Your task to perform on an android device: Search for a sofa on article.com Image 0: 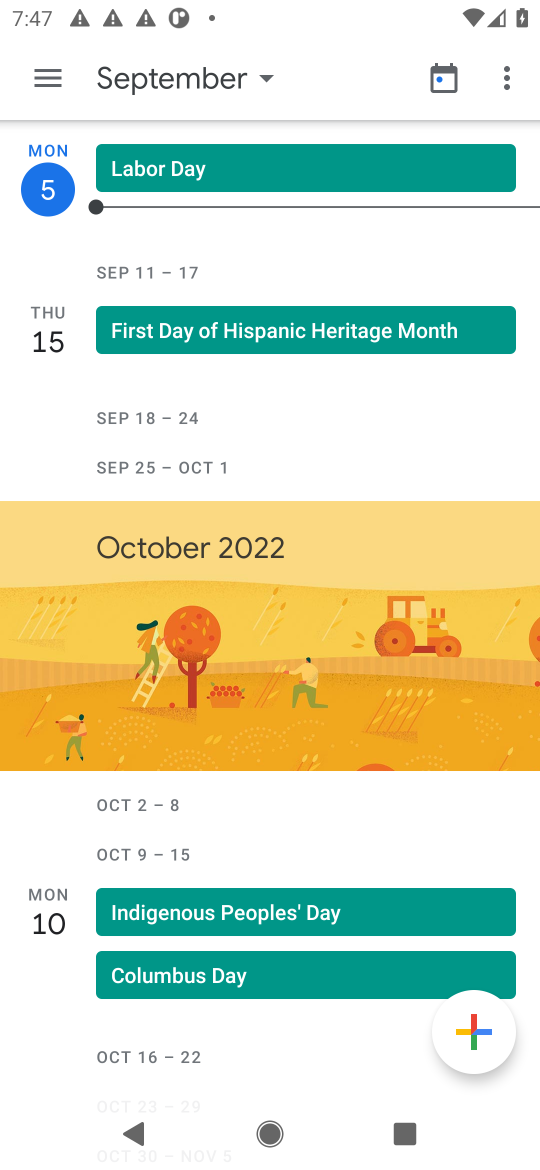
Step 0: press home button
Your task to perform on an android device: Search for a sofa on article.com Image 1: 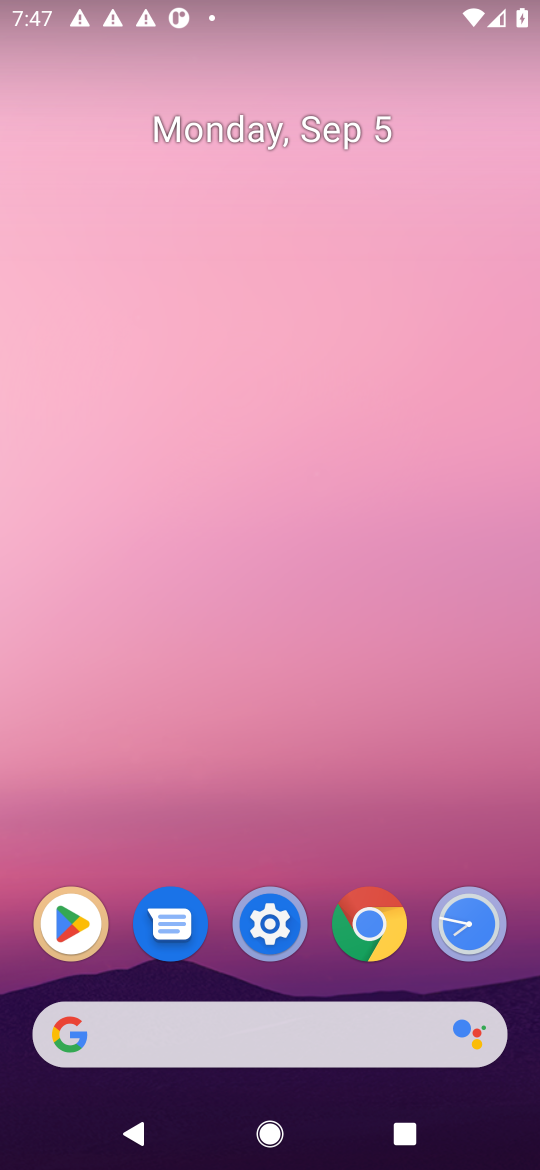
Step 1: click (323, 1033)
Your task to perform on an android device: Search for a sofa on article.com Image 2: 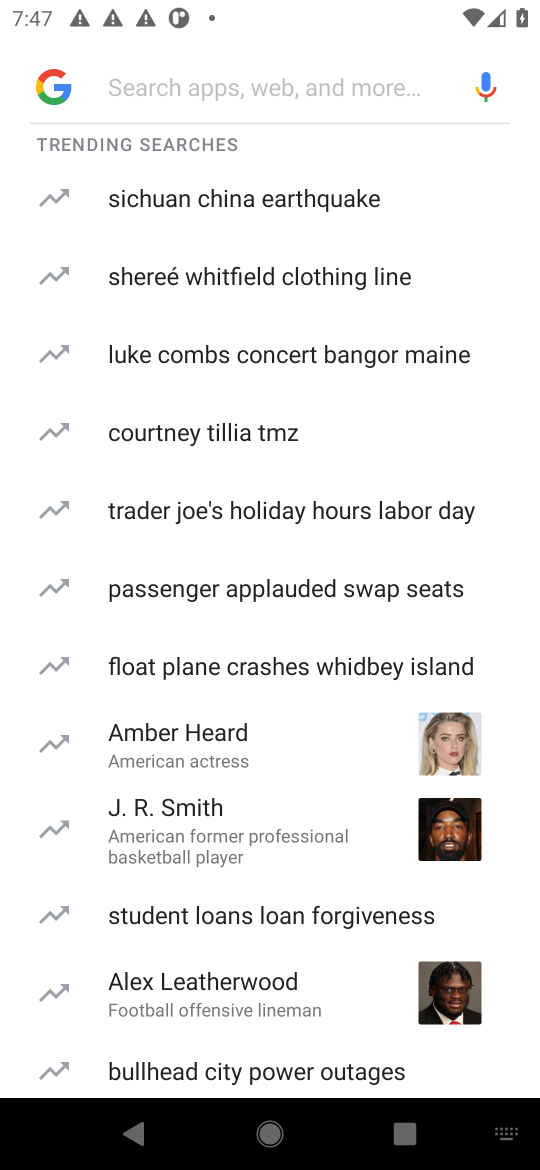
Step 2: press enter
Your task to perform on an android device: Search for a sofa on article.com Image 3: 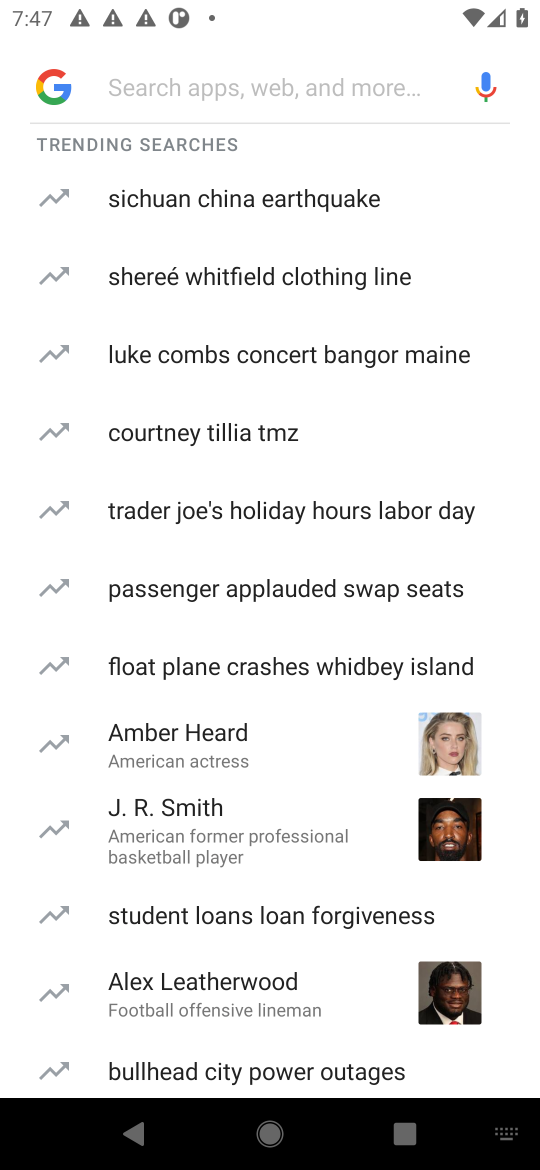
Step 3: type "article.com"
Your task to perform on an android device: Search for a sofa on article.com Image 4: 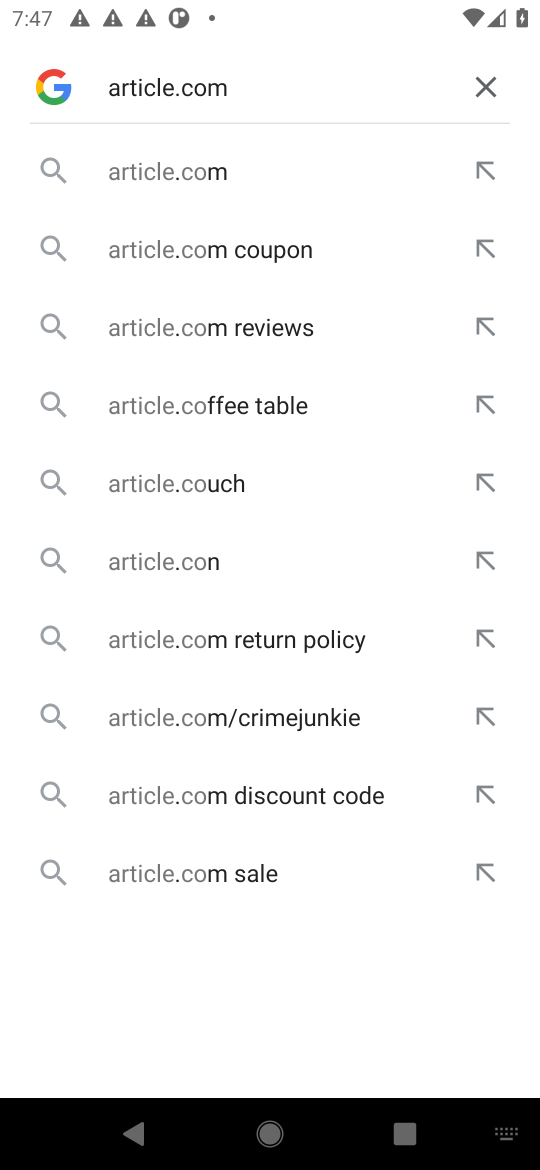
Step 4: click (236, 177)
Your task to perform on an android device: Search for a sofa on article.com Image 5: 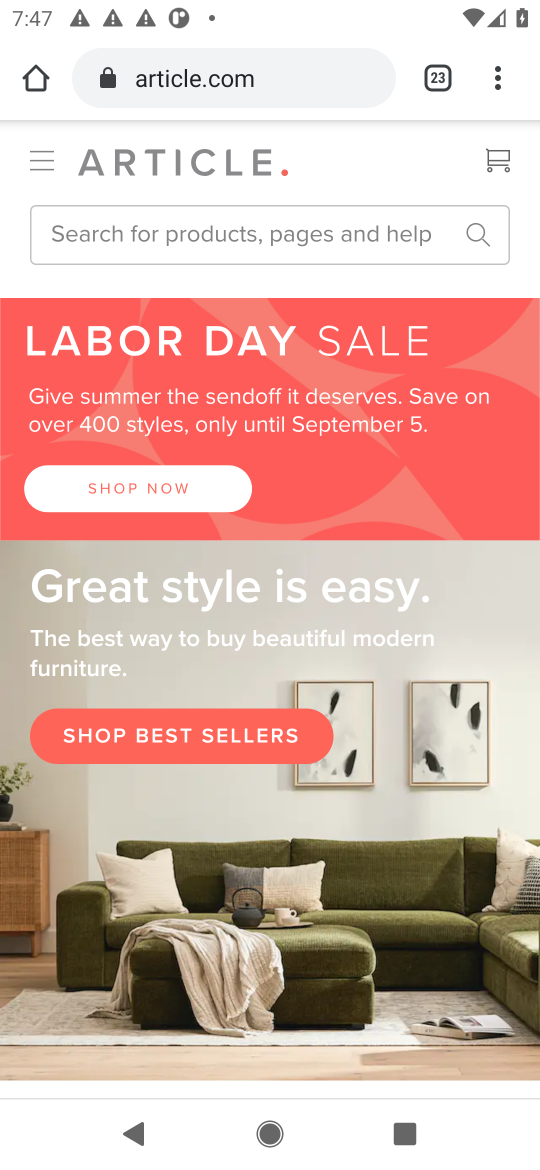
Step 5: click (326, 234)
Your task to perform on an android device: Search for a sofa on article.com Image 6: 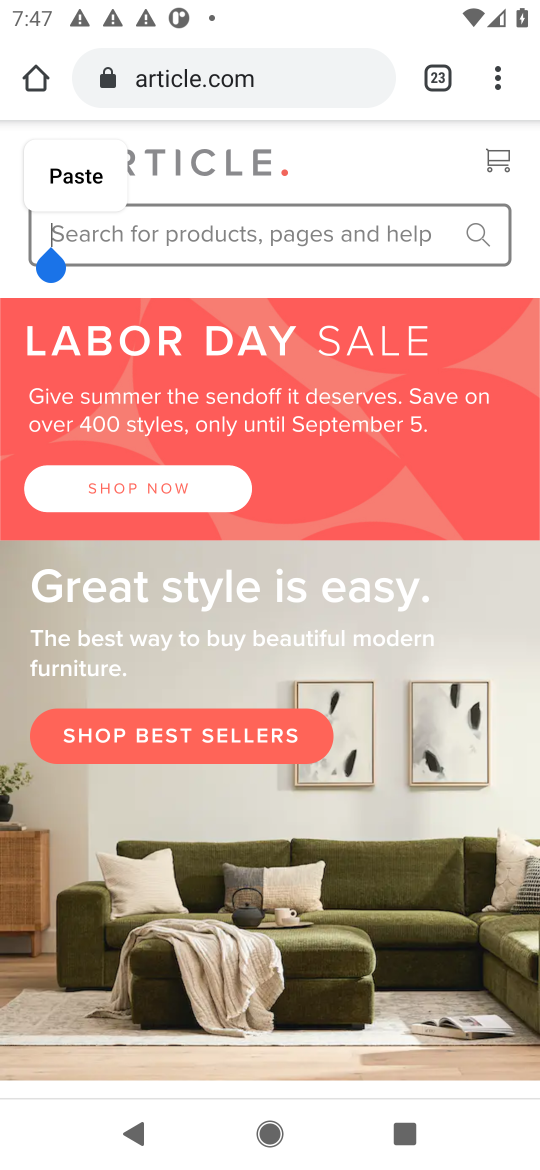
Step 6: press enter
Your task to perform on an android device: Search for a sofa on article.com Image 7: 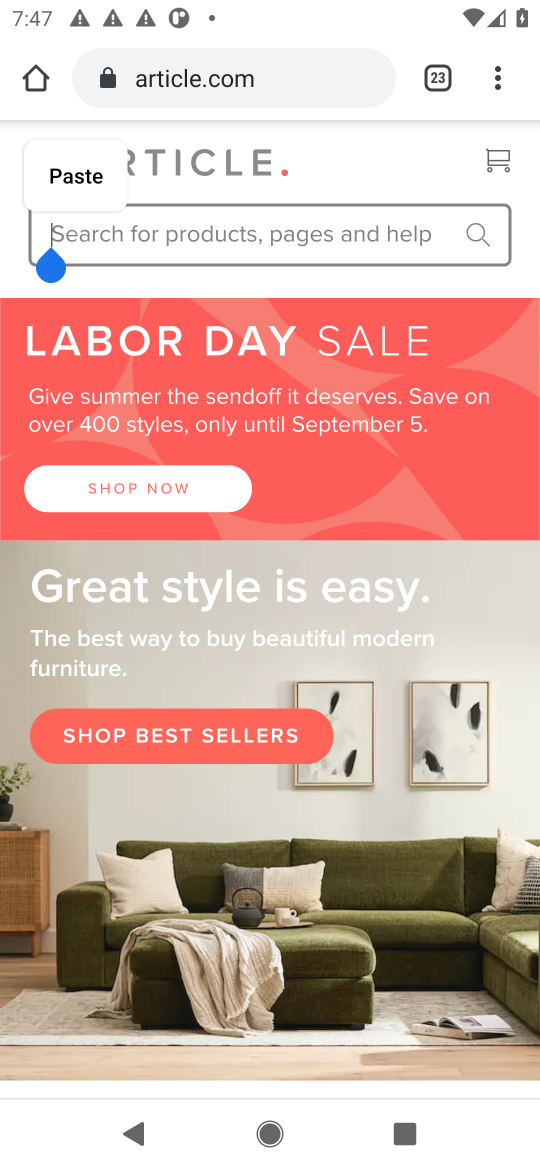
Step 7: type "sofa"
Your task to perform on an android device: Search for a sofa on article.com Image 8: 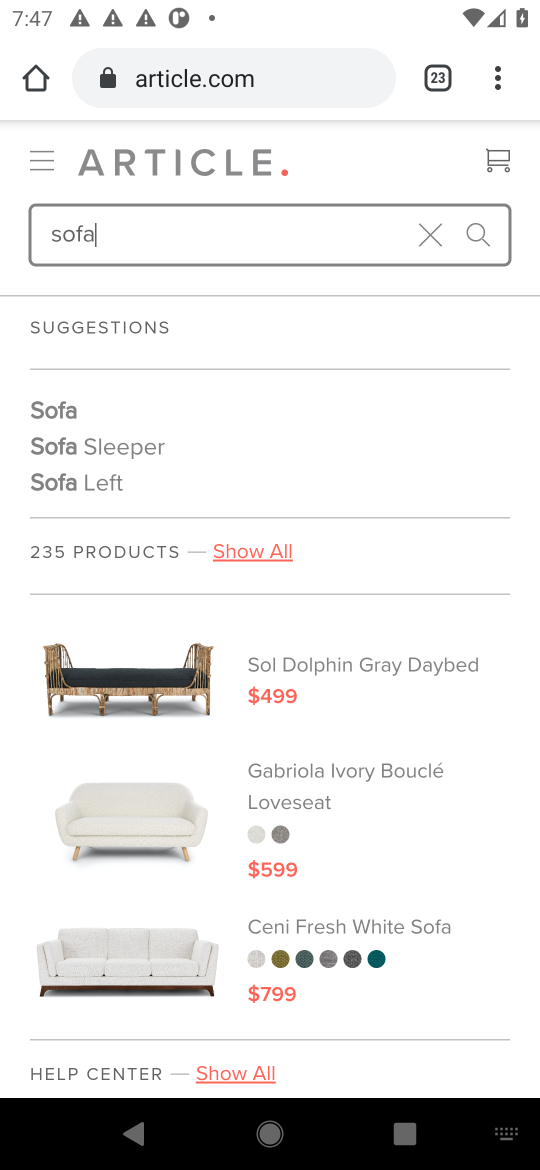
Step 8: task complete